Your task to perform on an android device: change timer sound Image 0: 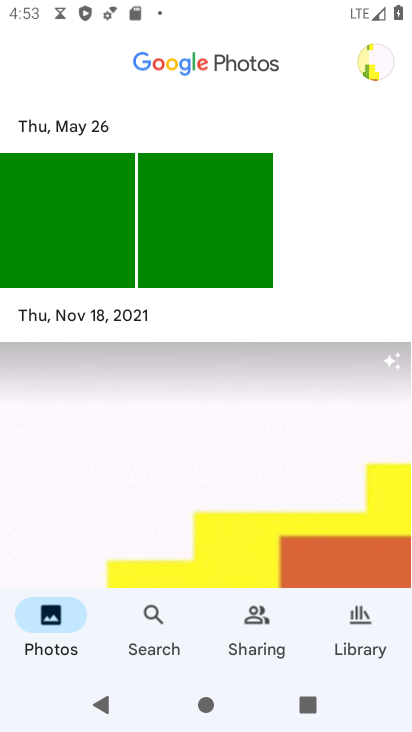
Step 0: press back button
Your task to perform on an android device: change timer sound Image 1: 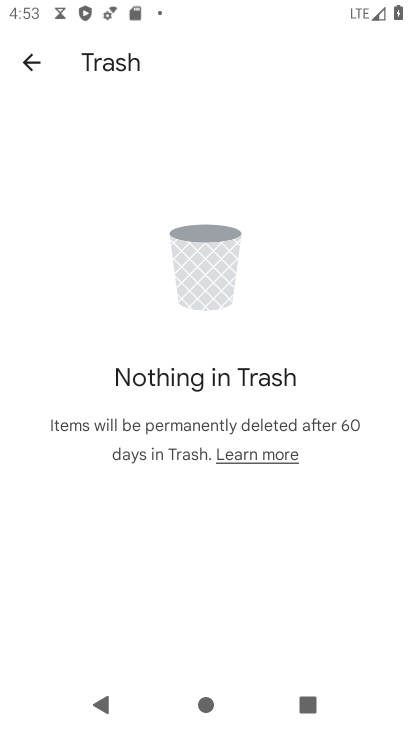
Step 1: press back button
Your task to perform on an android device: change timer sound Image 2: 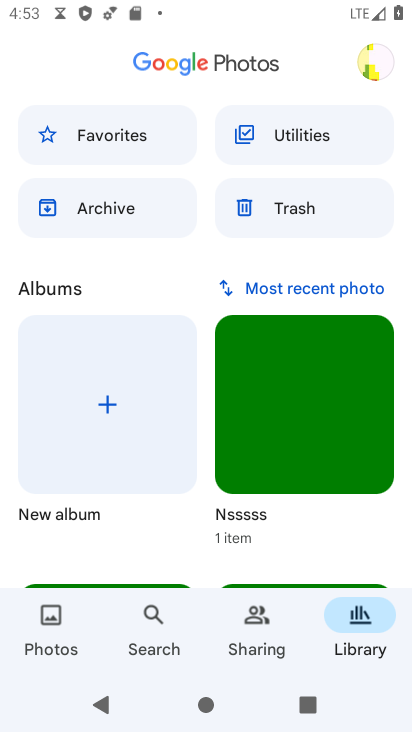
Step 2: press home button
Your task to perform on an android device: change timer sound Image 3: 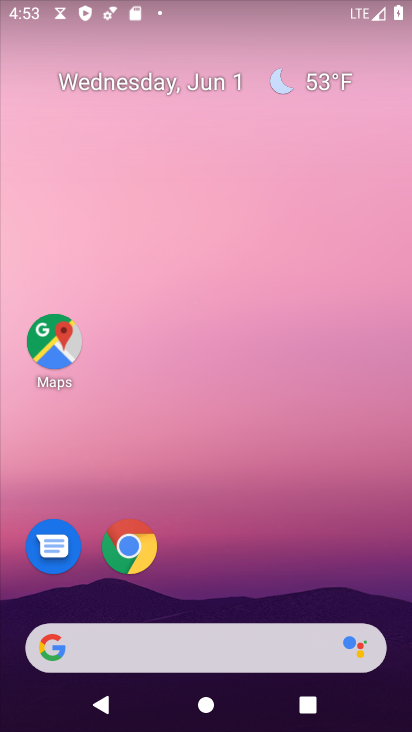
Step 3: drag from (265, 523) to (186, 14)
Your task to perform on an android device: change timer sound Image 4: 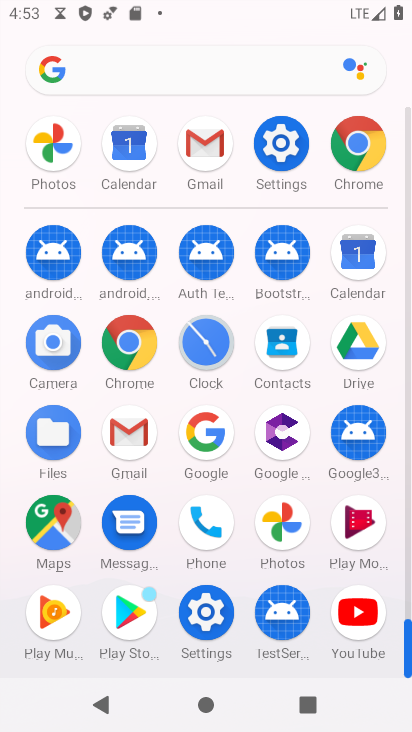
Step 4: drag from (5, 533) to (10, 231)
Your task to perform on an android device: change timer sound Image 5: 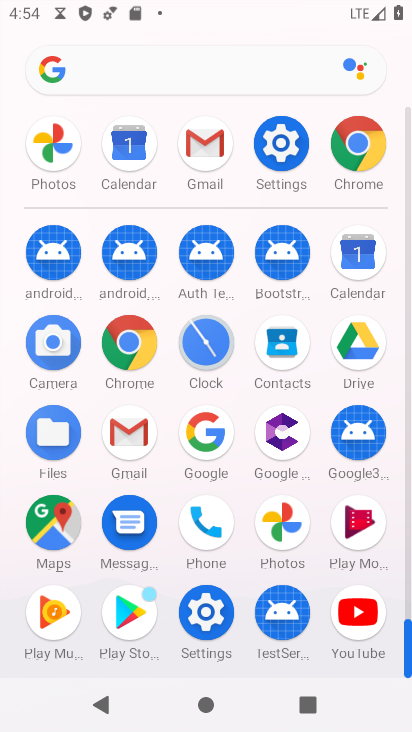
Step 5: click (204, 340)
Your task to perform on an android device: change timer sound Image 6: 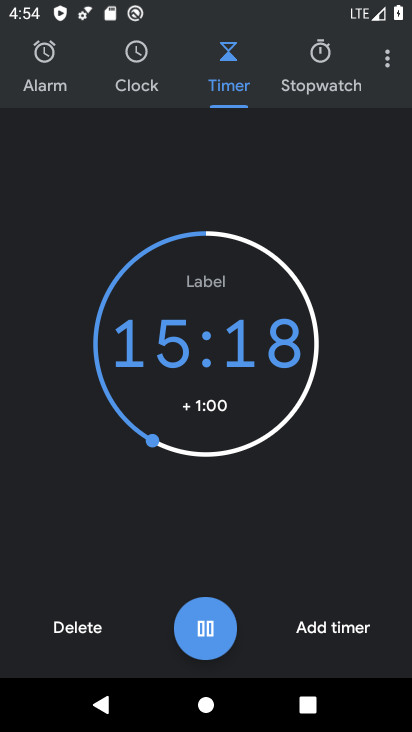
Step 6: drag from (382, 57) to (299, 110)
Your task to perform on an android device: change timer sound Image 7: 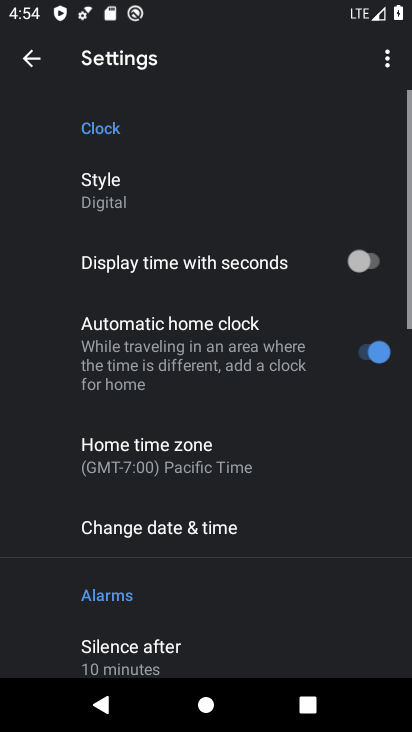
Step 7: drag from (217, 581) to (216, 160)
Your task to perform on an android device: change timer sound Image 8: 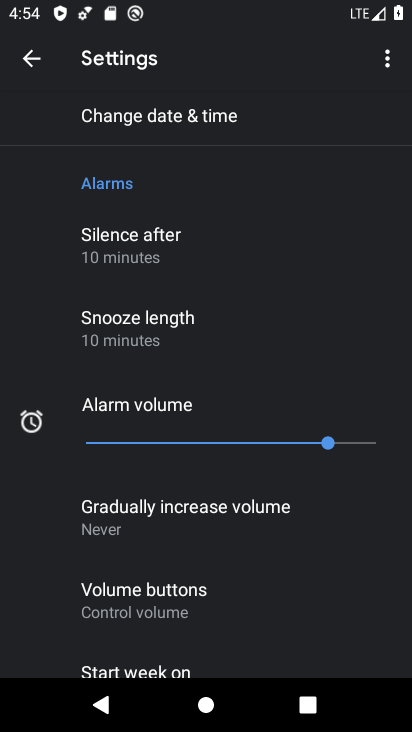
Step 8: drag from (224, 563) to (225, 195)
Your task to perform on an android device: change timer sound Image 9: 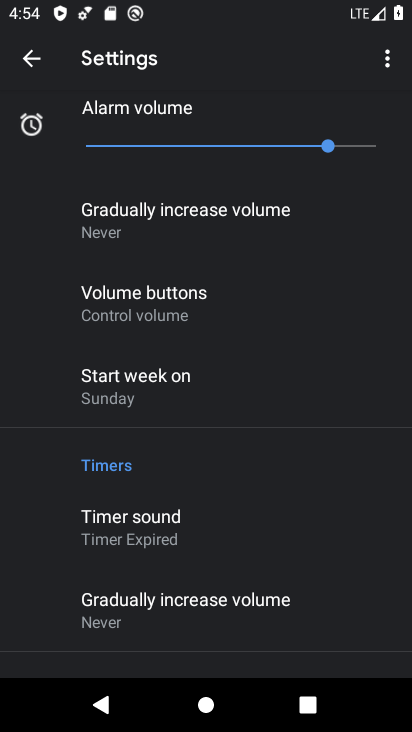
Step 9: click (204, 527)
Your task to perform on an android device: change timer sound Image 10: 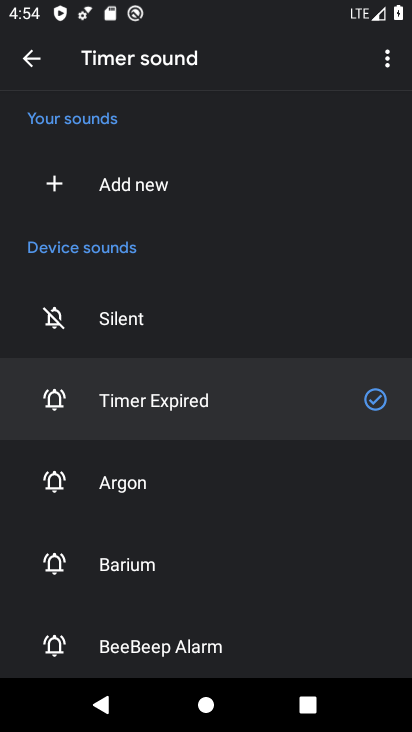
Step 10: click (137, 566)
Your task to perform on an android device: change timer sound Image 11: 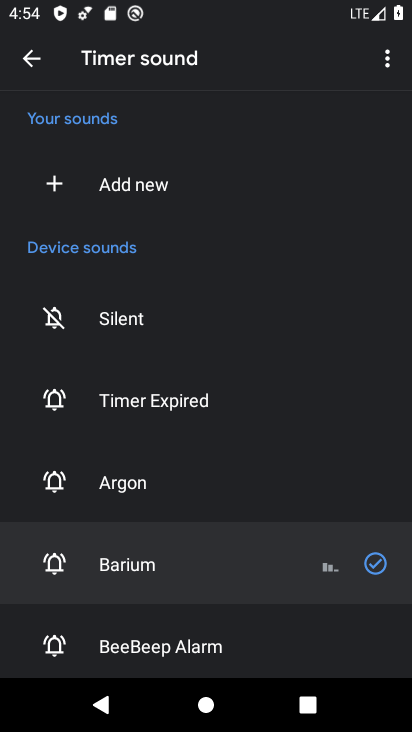
Step 11: task complete